Your task to perform on an android device: Open Chrome and go to settings Image 0: 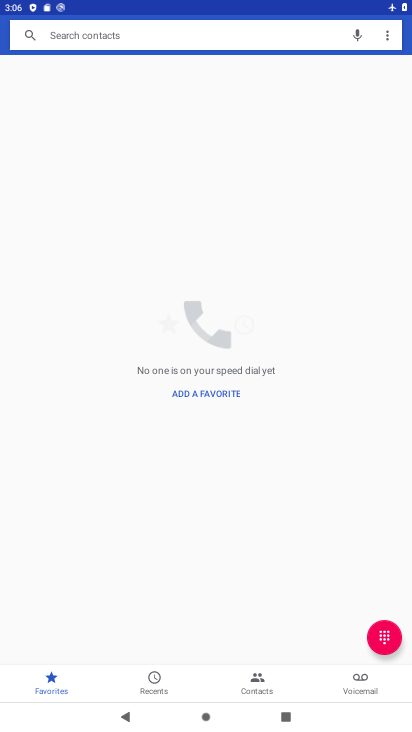
Step 0: press home button
Your task to perform on an android device: Open Chrome and go to settings Image 1: 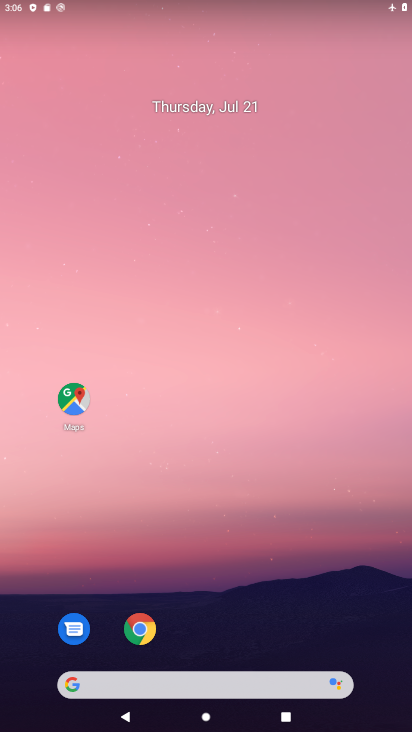
Step 1: click (149, 632)
Your task to perform on an android device: Open Chrome and go to settings Image 2: 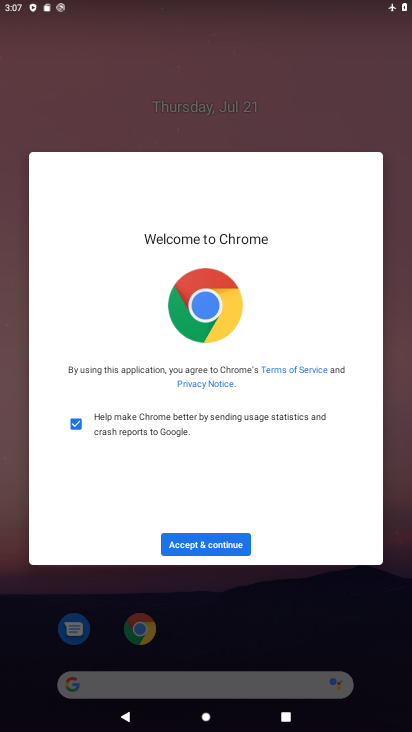
Step 2: click (211, 545)
Your task to perform on an android device: Open Chrome and go to settings Image 3: 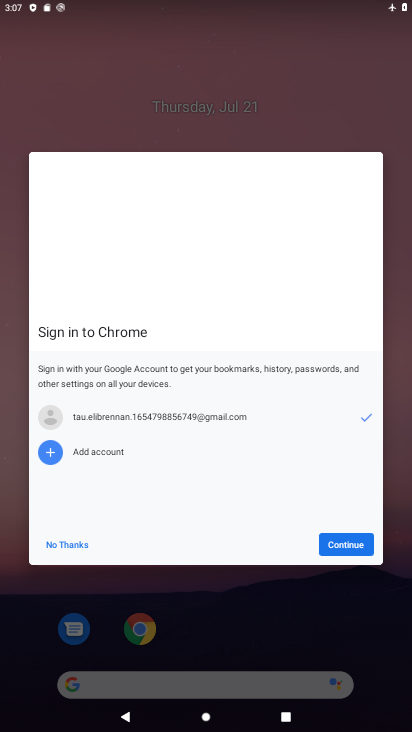
Step 3: click (364, 545)
Your task to perform on an android device: Open Chrome and go to settings Image 4: 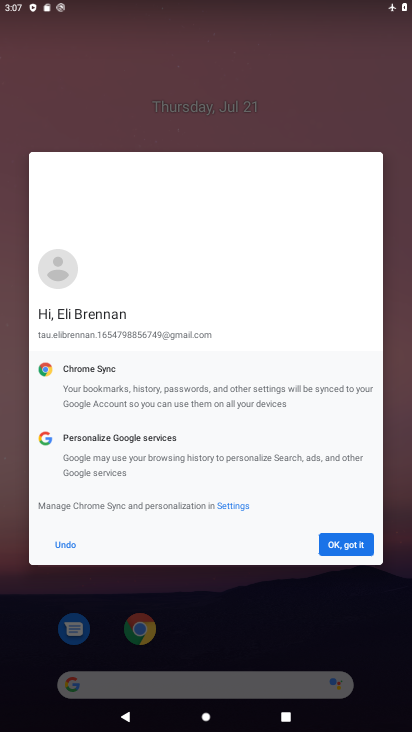
Step 4: click (364, 545)
Your task to perform on an android device: Open Chrome and go to settings Image 5: 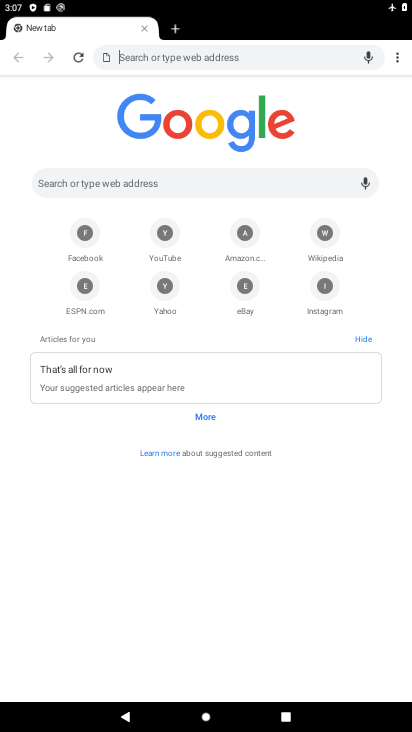
Step 5: click (404, 55)
Your task to perform on an android device: Open Chrome and go to settings Image 6: 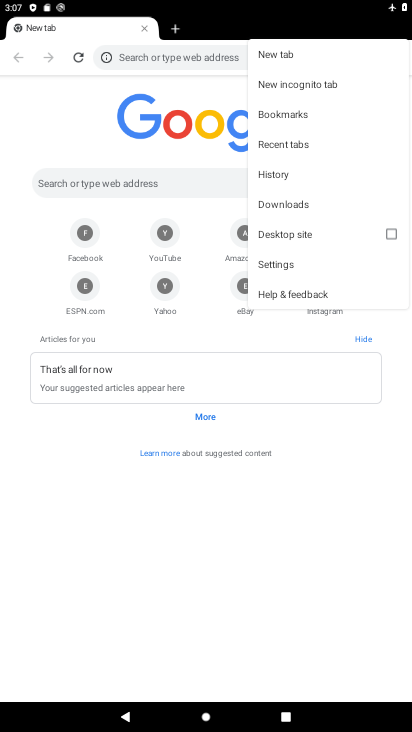
Step 6: click (293, 265)
Your task to perform on an android device: Open Chrome and go to settings Image 7: 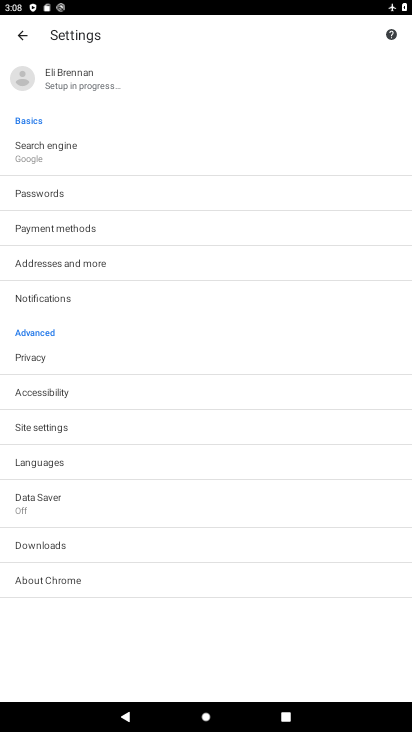
Step 7: task complete